Your task to perform on an android device: Go to Reddit.com Image 0: 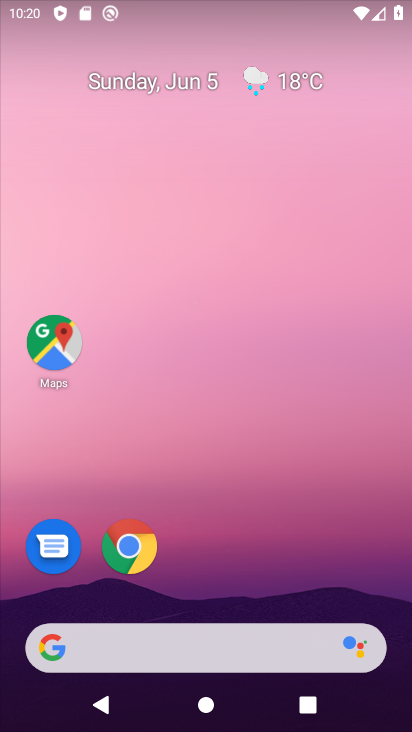
Step 0: click (131, 561)
Your task to perform on an android device: Go to Reddit.com Image 1: 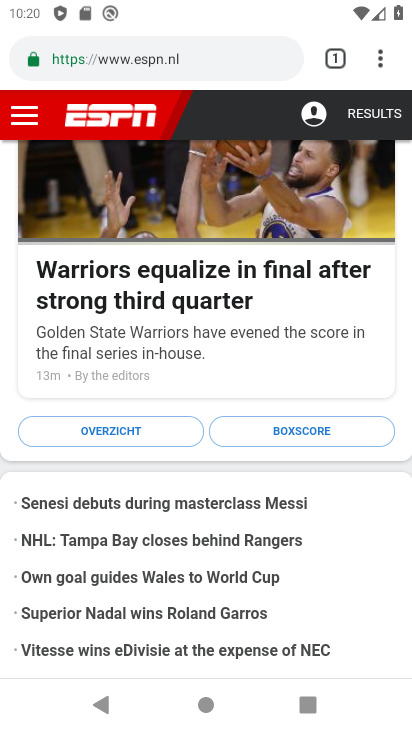
Step 1: click (338, 63)
Your task to perform on an android device: Go to Reddit.com Image 2: 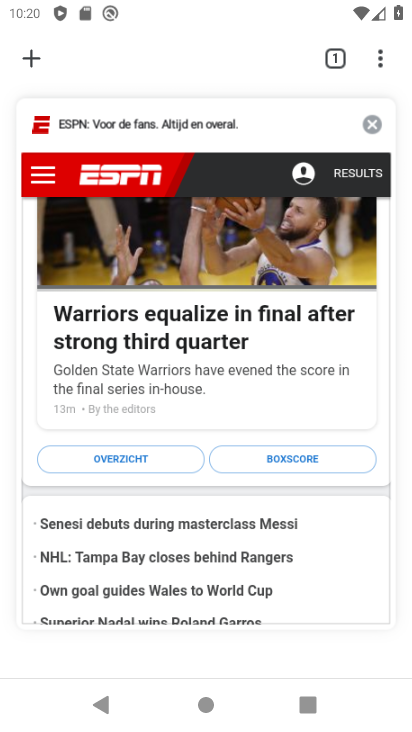
Step 2: click (379, 124)
Your task to perform on an android device: Go to Reddit.com Image 3: 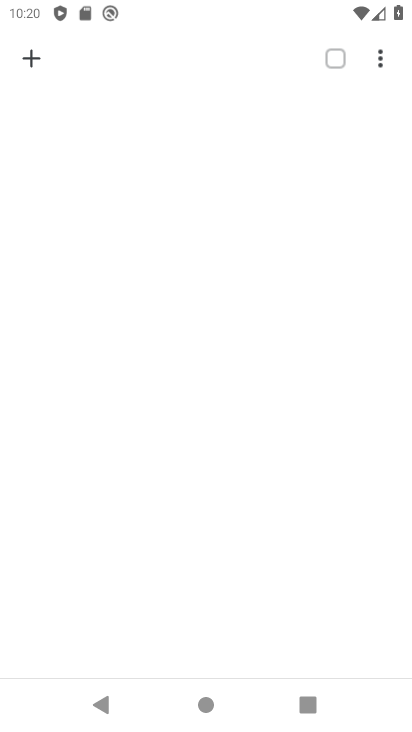
Step 3: click (36, 60)
Your task to perform on an android device: Go to Reddit.com Image 4: 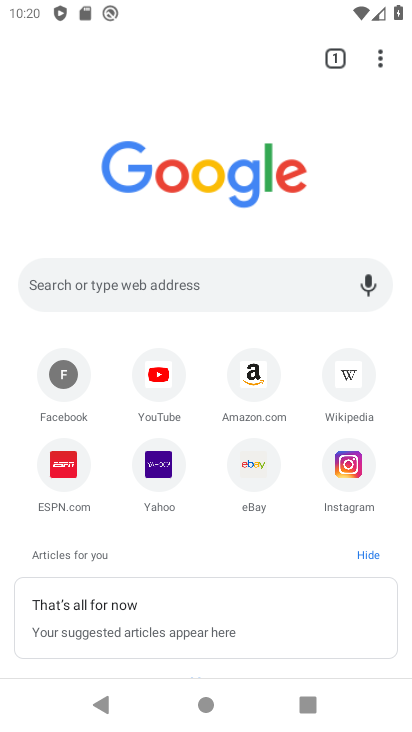
Step 4: click (183, 284)
Your task to perform on an android device: Go to Reddit.com Image 5: 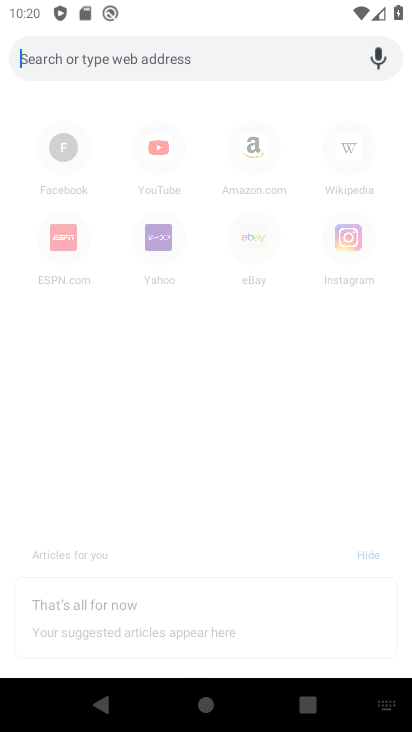
Step 5: type "reddit.com"
Your task to perform on an android device: Go to Reddit.com Image 6: 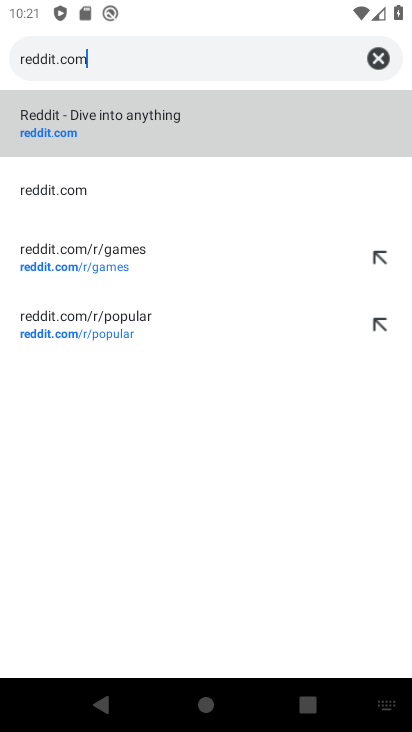
Step 6: click (180, 119)
Your task to perform on an android device: Go to Reddit.com Image 7: 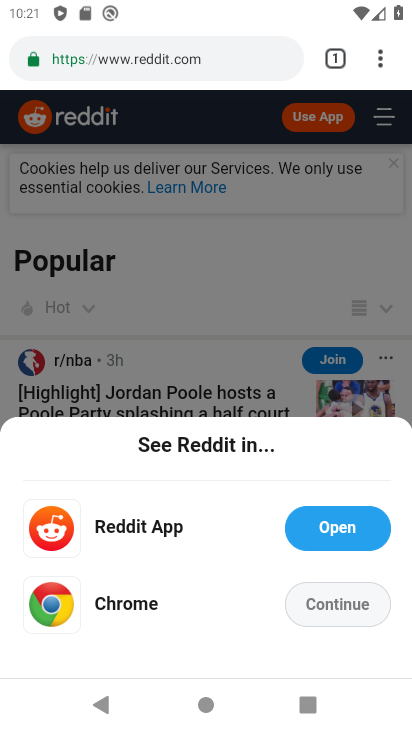
Step 7: click (352, 615)
Your task to perform on an android device: Go to Reddit.com Image 8: 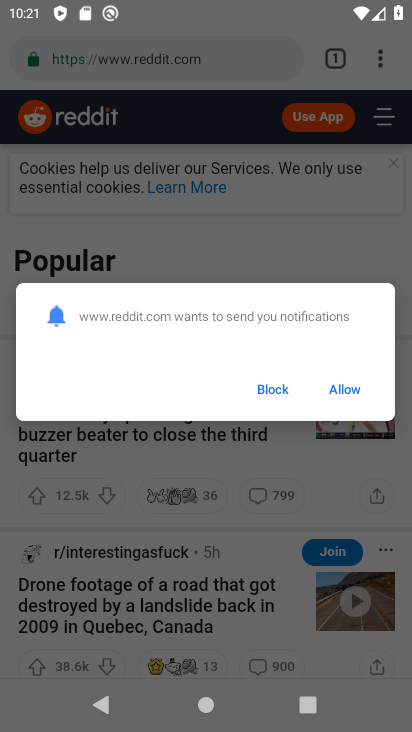
Step 8: click (278, 392)
Your task to perform on an android device: Go to Reddit.com Image 9: 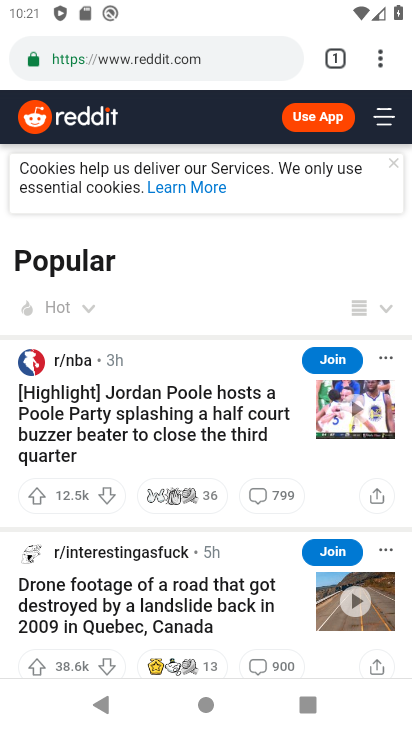
Step 9: task complete